Your task to perform on an android device: Find coffee shops on Maps Image 0: 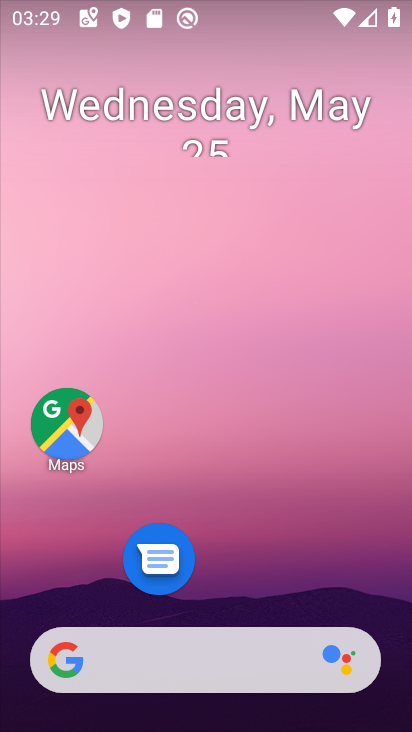
Step 0: drag from (225, 609) to (245, 179)
Your task to perform on an android device: Find coffee shops on Maps Image 1: 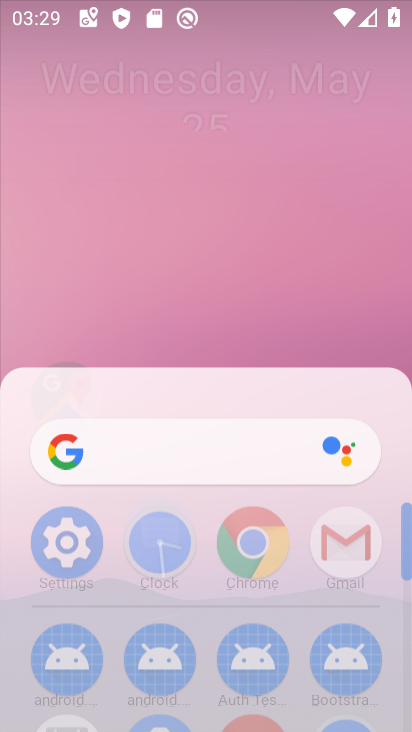
Step 1: click (248, 63)
Your task to perform on an android device: Find coffee shops on Maps Image 2: 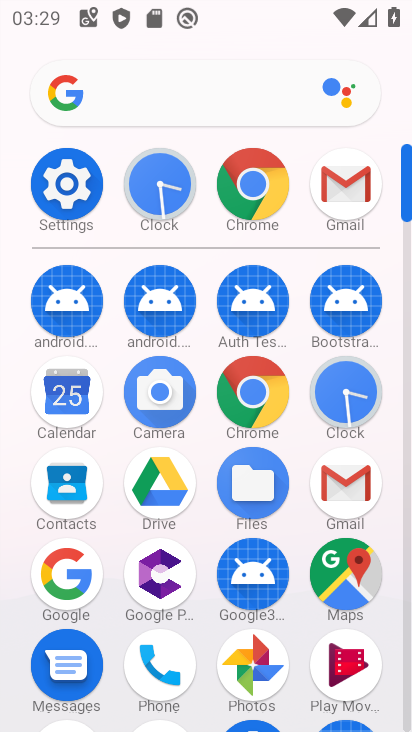
Step 2: click (343, 566)
Your task to perform on an android device: Find coffee shops on Maps Image 3: 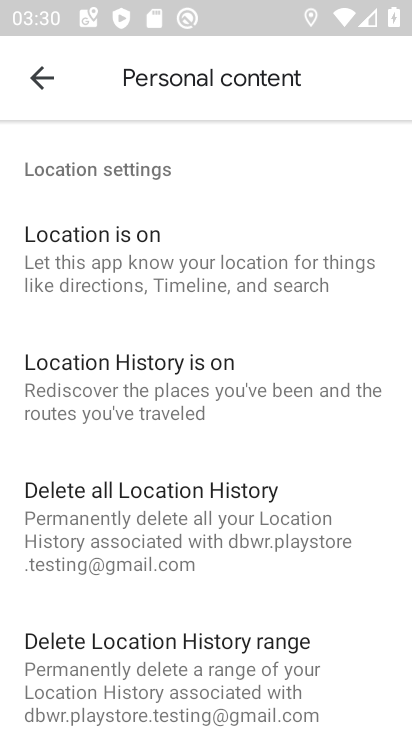
Step 3: click (43, 69)
Your task to perform on an android device: Find coffee shops on Maps Image 4: 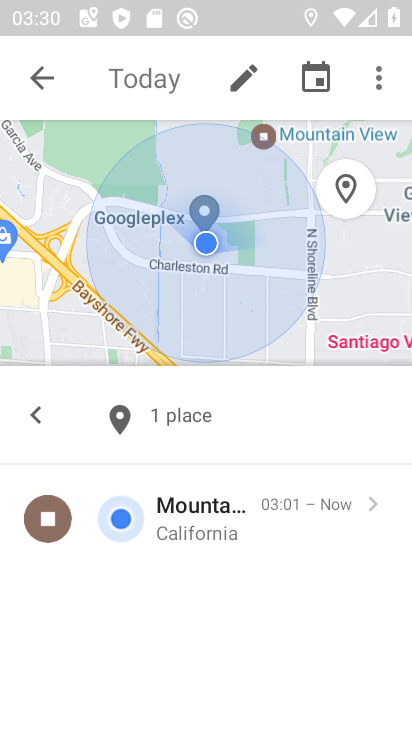
Step 4: click (44, 78)
Your task to perform on an android device: Find coffee shops on Maps Image 5: 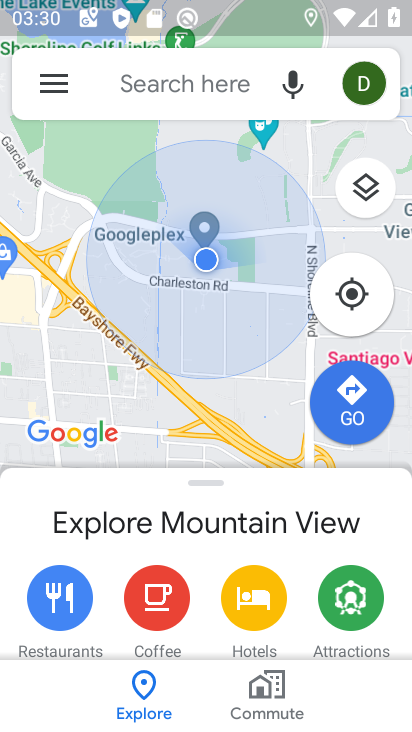
Step 5: click (139, 86)
Your task to perform on an android device: Find coffee shops on Maps Image 6: 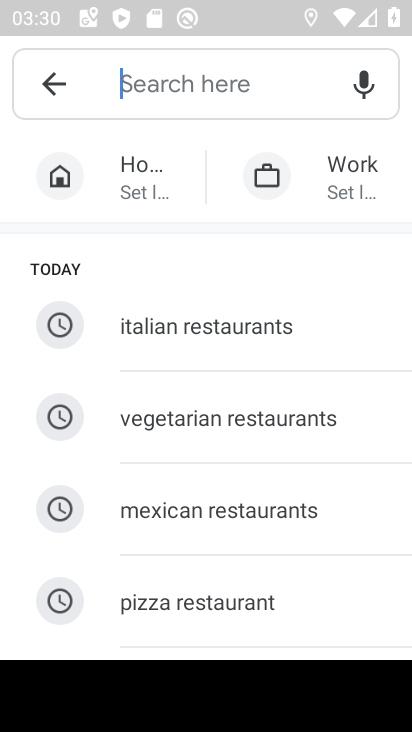
Step 6: click (233, 127)
Your task to perform on an android device: Find coffee shops on Maps Image 7: 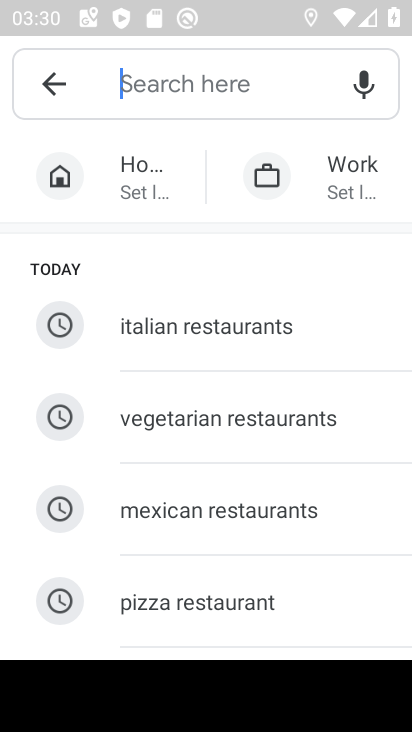
Step 7: drag from (185, 566) to (225, 303)
Your task to perform on an android device: Find coffee shops on Maps Image 8: 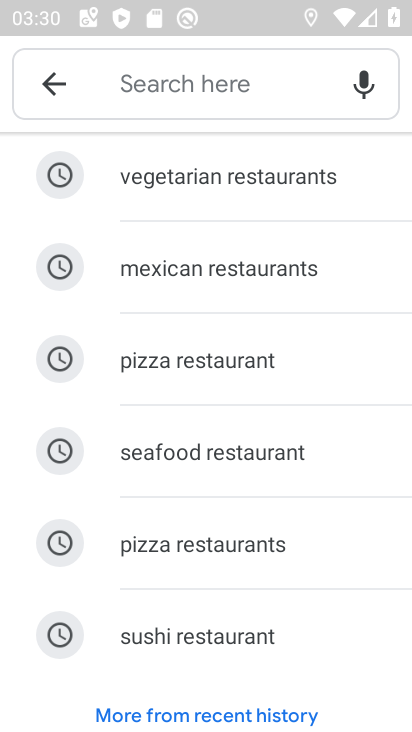
Step 8: drag from (191, 675) to (210, 326)
Your task to perform on an android device: Find coffee shops on Maps Image 9: 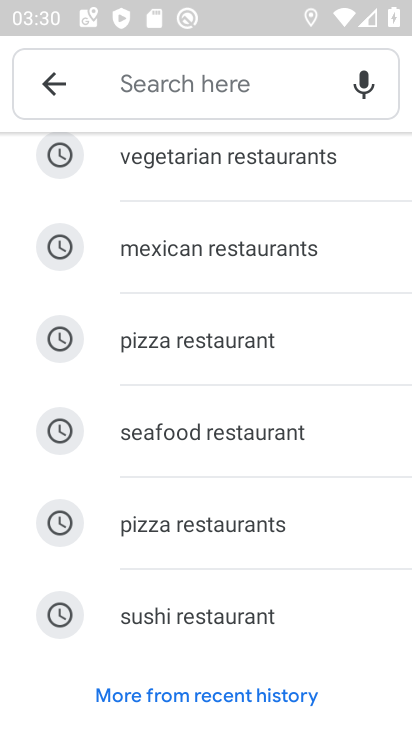
Step 9: drag from (148, 180) to (185, 678)
Your task to perform on an android device: Find coffee shops on Maps Image 10: 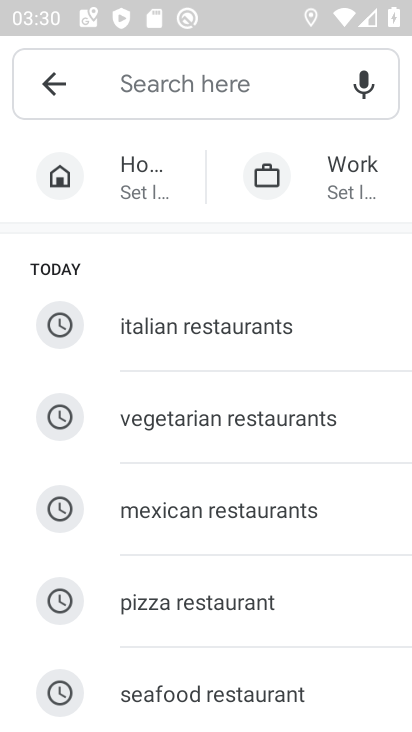
Step 10: click (157, 78)
Your task to perform on an android device: Find coffee shops on Maps Image 11: 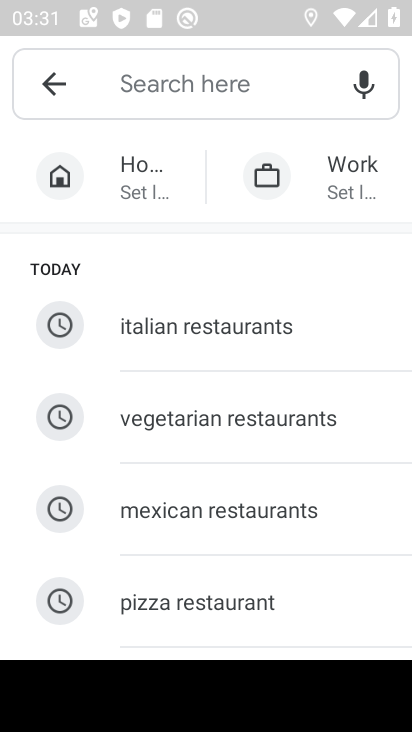
Step 11: type "coffee"
Your task to perform on an android device: Find coffee shops on Maps Image 12: 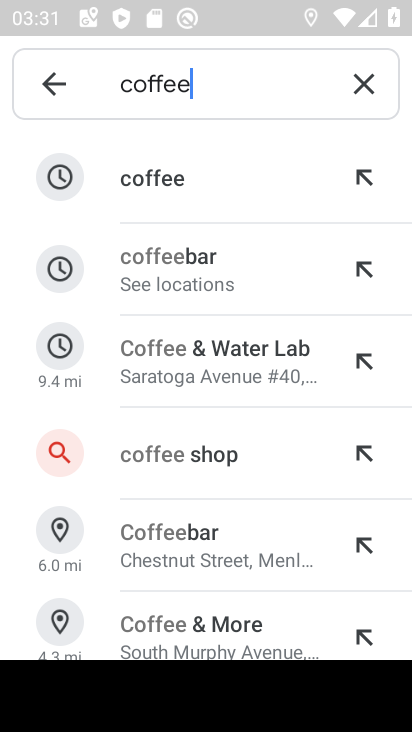
Step 12: click (195, 177)
Your task to perform on an android device: Find coffee shops on Maps Image 13: 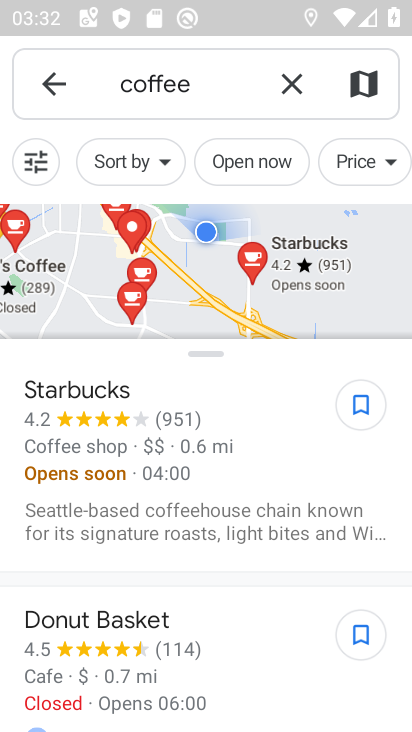
Step 13: task complete